Your task to perform on an android device: Open ESPN.com Image 0: 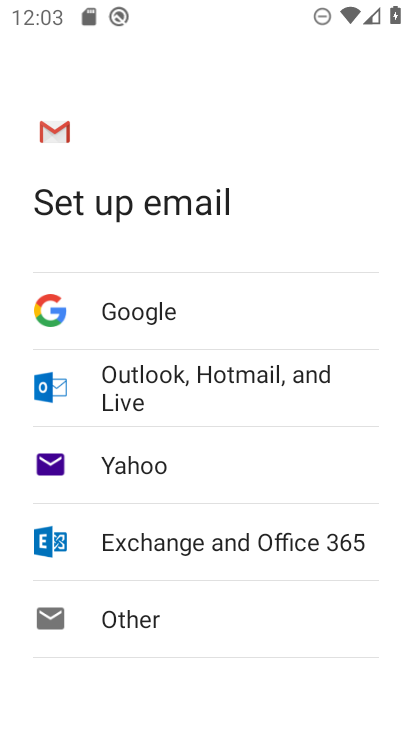
Step 0: drag from (365, 567) to (324, 243)
Your task to perform on an android device: Open ESPN.com Image 1: 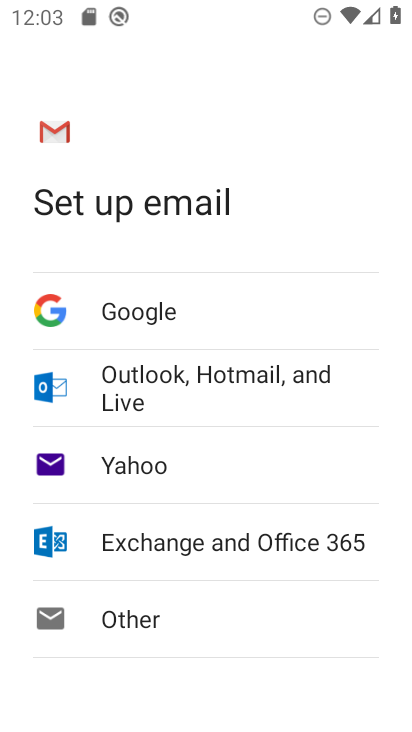
Step 1: press home button
Your task to perform on an android device: Open ESPN.com Image 2: 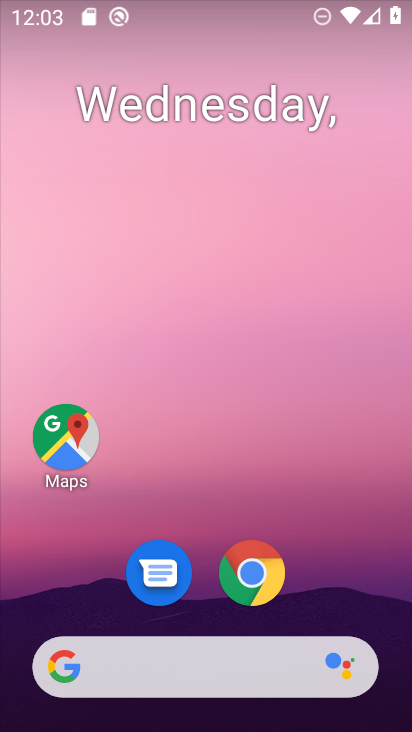
Step 2: drag from (349, 556) to (300, 42)
Your task to perform on an android device: Open ESPN.com Image 3: 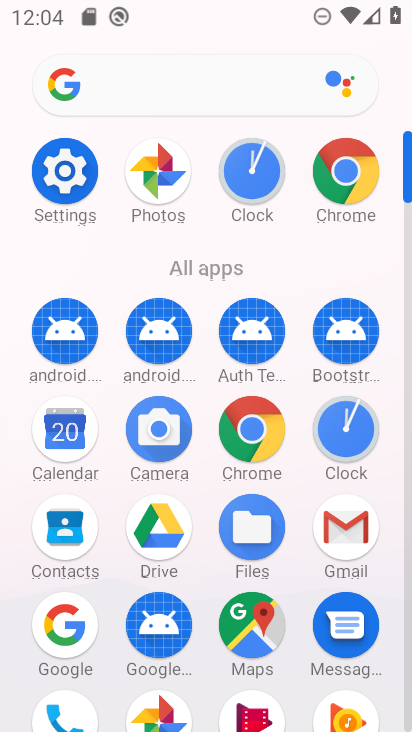
Step 3: click (253, 441)
Your task to perform on an android device: Open ESPN.com Image 4: 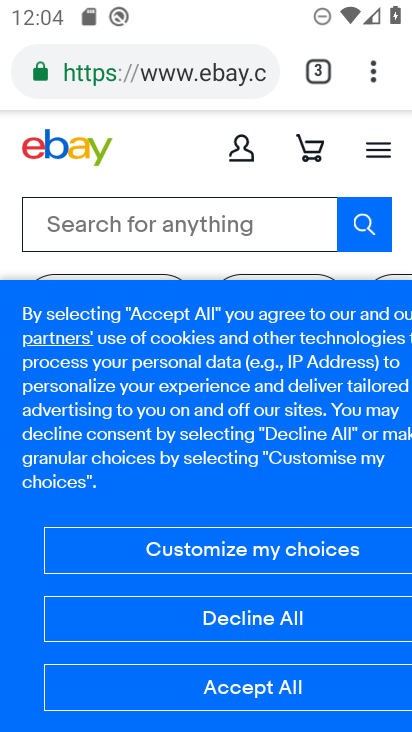
Step 4: click (232, 78)
Your task to perform on an android device: Open ESPN.com Image 5: 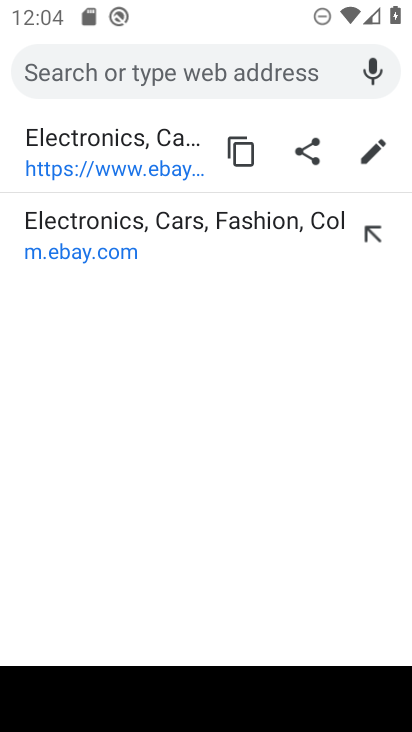
Step 5: type "espn"
Your task to perform on an android device: Open ESPN.com Image 6: 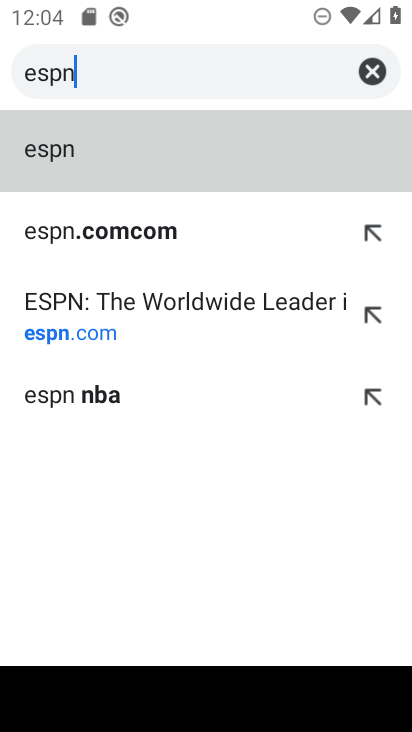
Step 6: click (129, 329)
Your task to perform on an android device: Open ESPN.com Image 7: 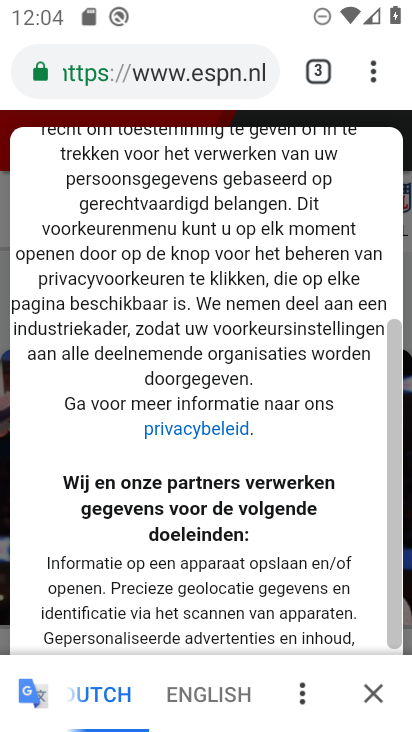
Step 7: task complete